Your task to perform on an android device: toggle notification dots Image 0: 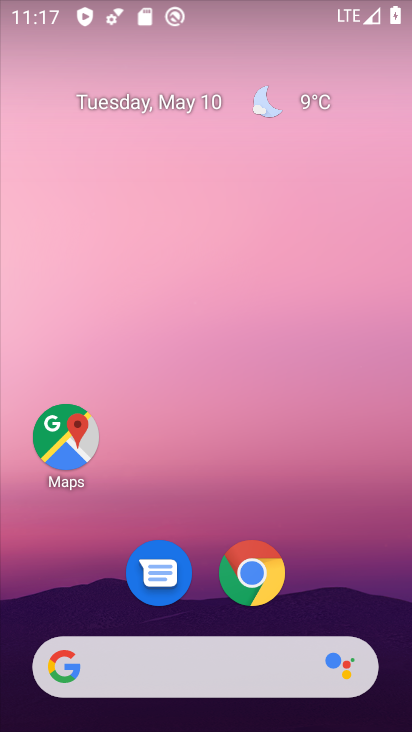
Step 0: press home button
Your task to perform on an android device: toggle notification dots Image 1: 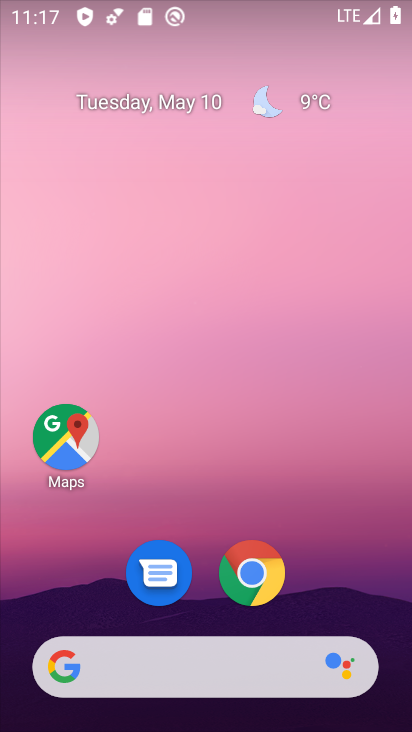
Step 1: drag from (159, 644) to (292, 55)
Your task to perform on an android device: toggle notification dots Image 2: 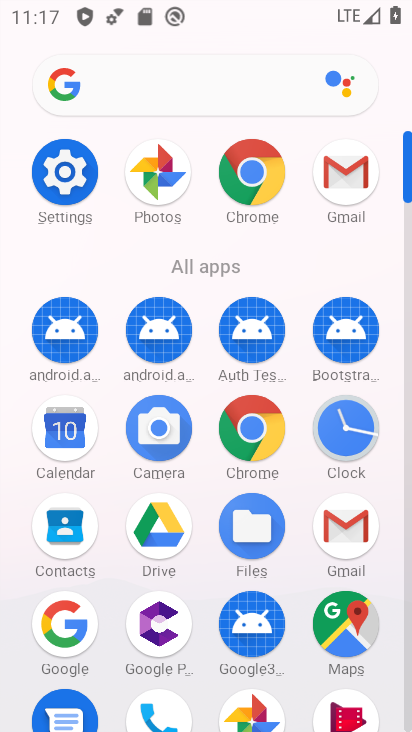
Step 2: click (69, 179)
Your task to perform on an android device: toggle notification dots Image 3: 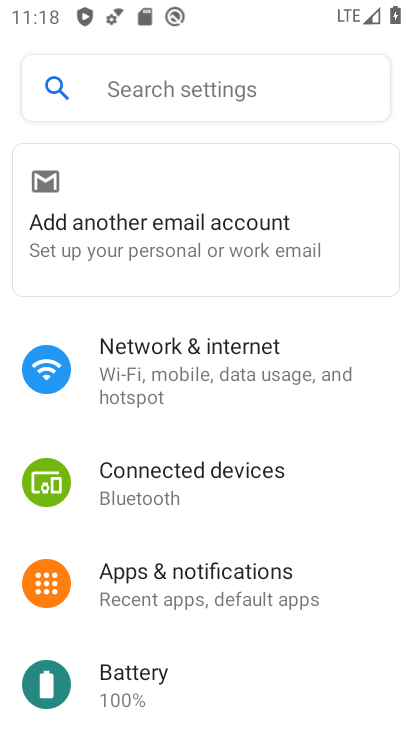
Step 3: drag from (193, 553) to (294, 180)
Your task to perform on an android device: toggle notification dots Image 4: 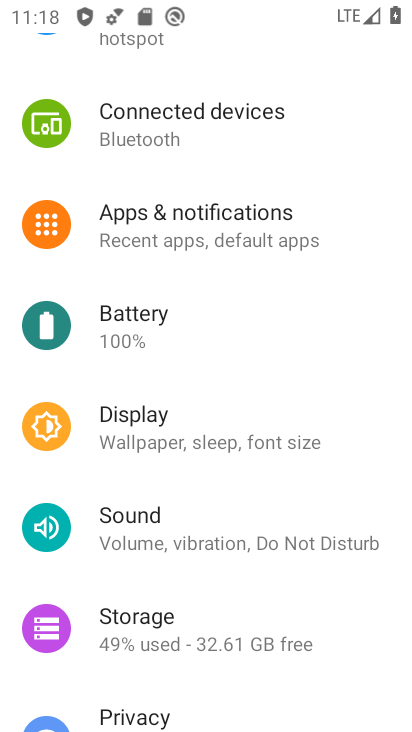
Step 4: click (204, 231)
Your task to perform on an android device: toggle notification dots Image 5: 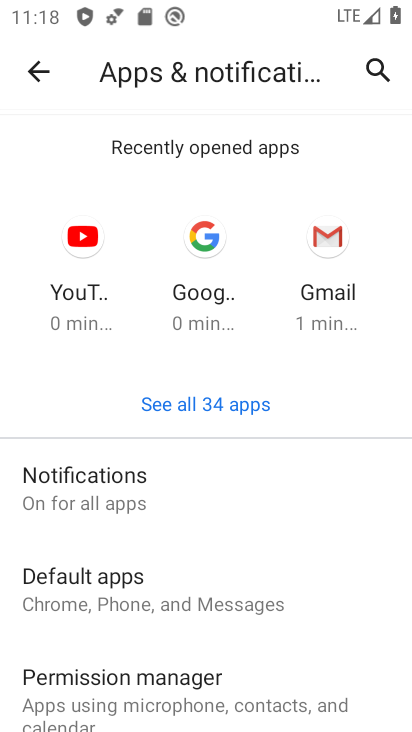
Step 5: click (108, 498)
Your task to perform on an android device: toggle notification dots Image 6: 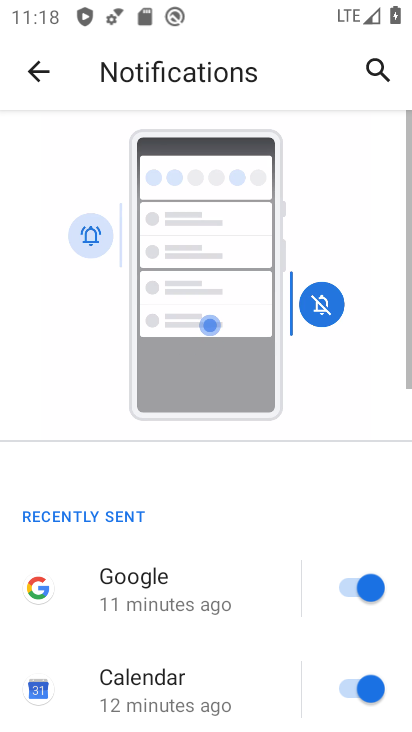
Step 6: drag from (205, 616) to (314, 70)
Your task to perform on an android device: toggle notification dots Image 7: 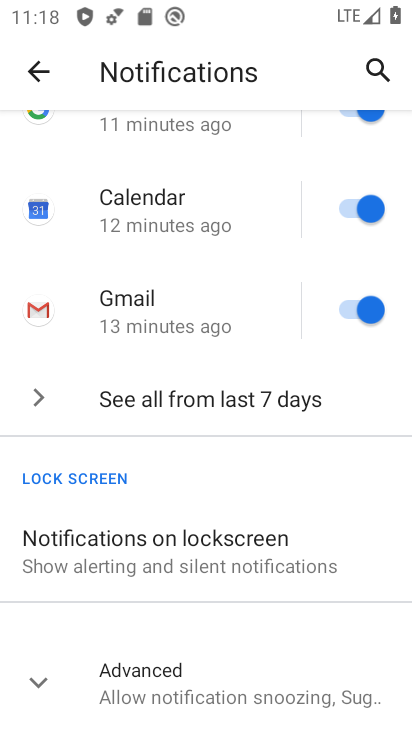
Step 7: click (135, 653)
Your task to perform on an android device: toggle notification dots Image 8: 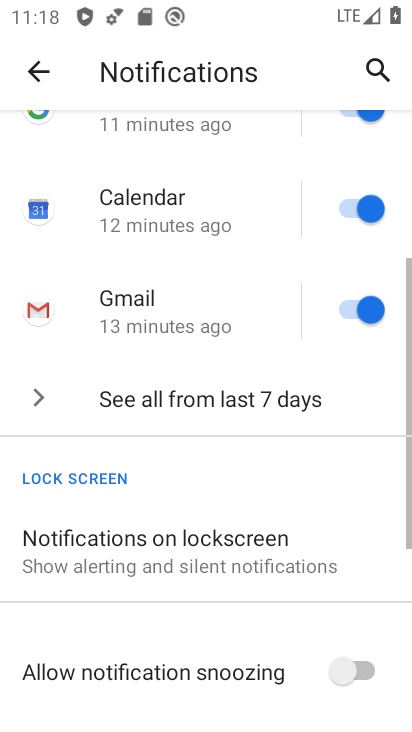
Step 8: drag from (145, 649) to (275, 137)
Your task to perform on an android device: toggle notification dots Image 9: 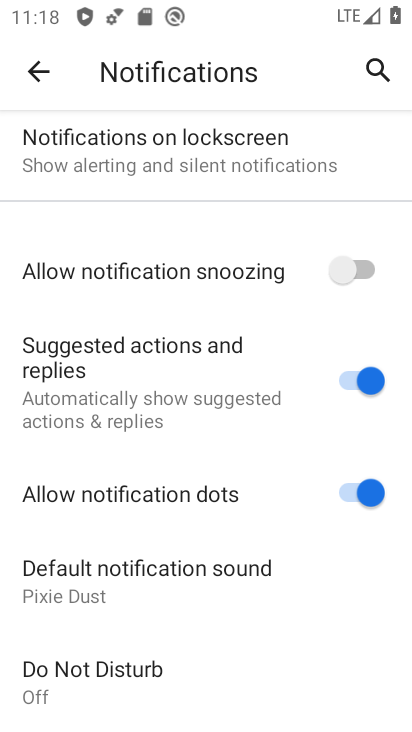
Step 9: click (354, 490)
Your task to perform on an android device: toggle notification dots Image 10: 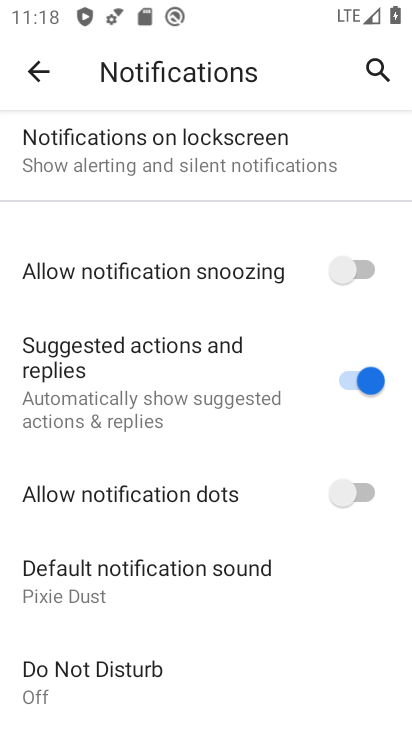
Step 10: task complete